Your task to perform on an android device: Show me the alarms in the clock app Image 0: 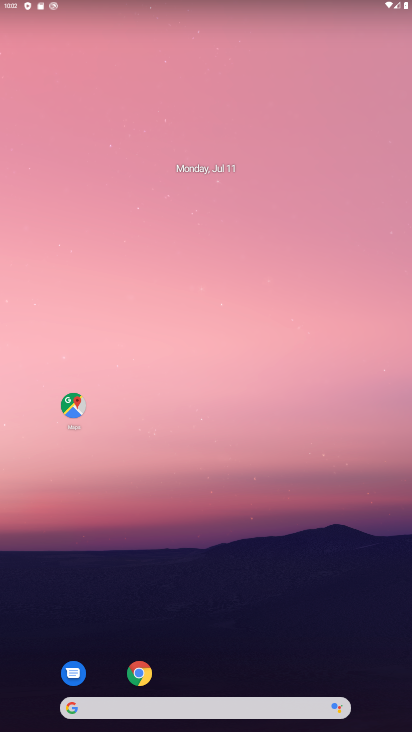
Step 0: drag from (365, 630) to (350, 187)
Your task to perform on an android device: Show me the alarms in the clock app Image 1: 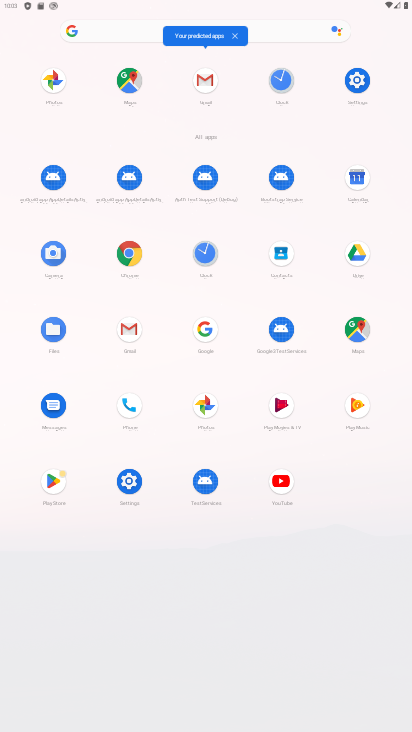
Step 1: click (193, 250)
Your task to perform on an android device: Show me the alarms in the clock app Image 2: 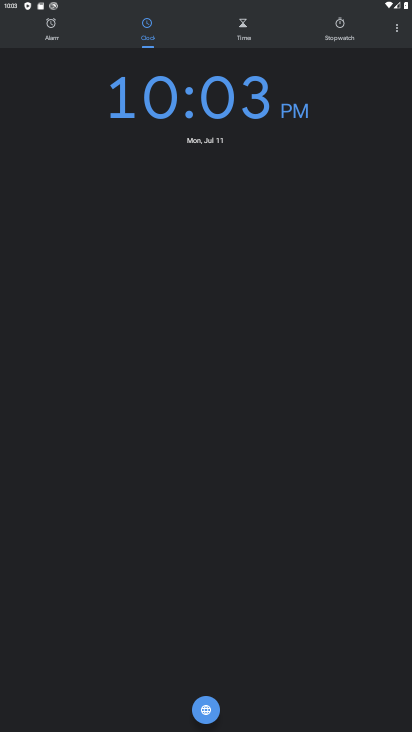
Step 2: click (56, 33)
Your task to perform on an android device: Show me the alarms in the clock app Image 3: 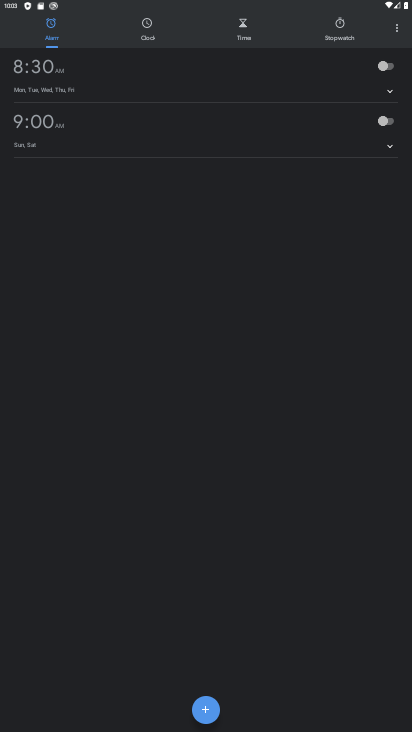
Step 3: task complete